Your task to perform on an android device: Go to sound settings Image 0: 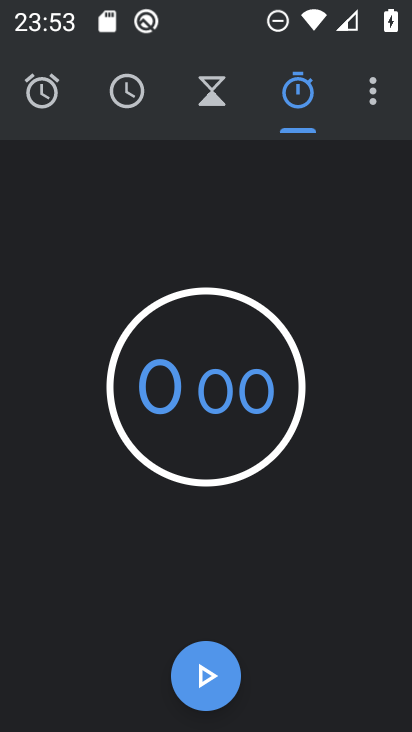
Step 0: press home button
Your task to perform on an android device: Go to sound settings Image 1: 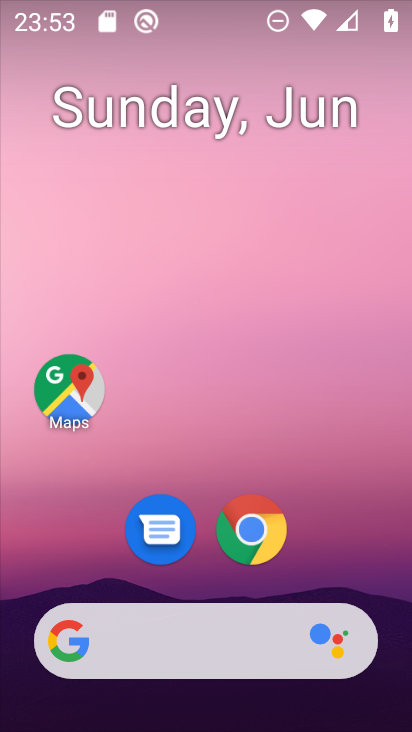
Step 1: drag from (394, 638) to (332, 29)
Your task to perform on an android device: Go to sound settings Image 2: 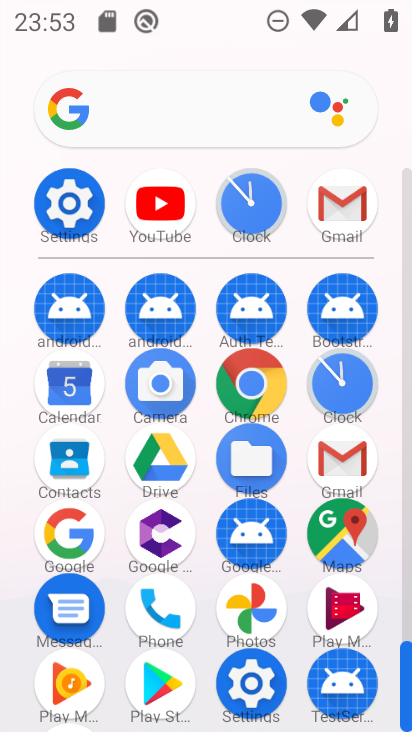
Step 2: click (250, 686)
Your task to perform on an android device: Go to sound settings Image 3: 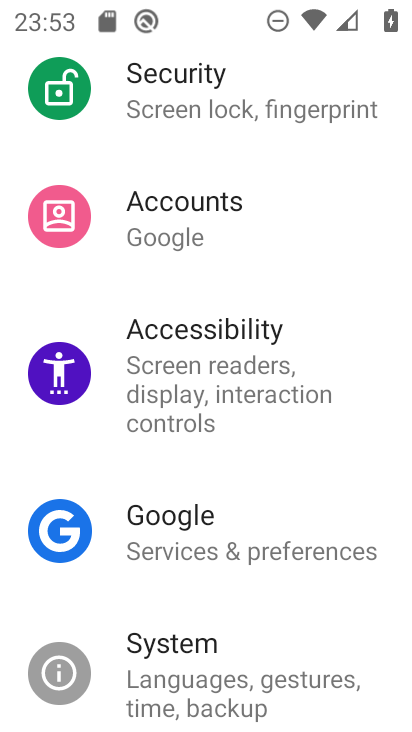
Step 3: drag from (367, 183) to (361, 541)
Your task to perform on an android device: Go to sound settings Image 4: 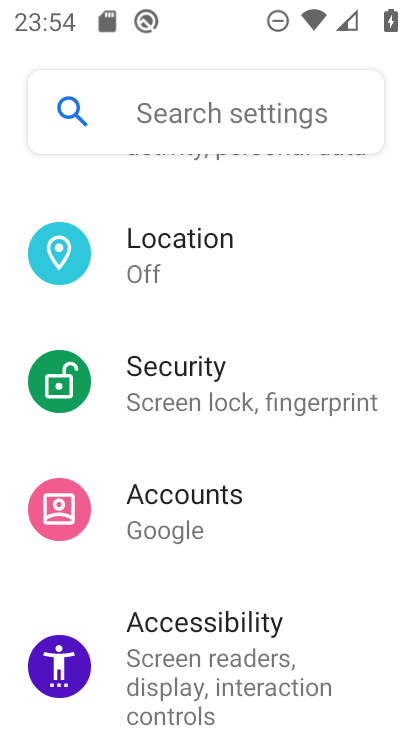
Step 4: drag from (358, 189) to (345, 612)
Your task to perform on an android device: Go to sound settings Image 5: 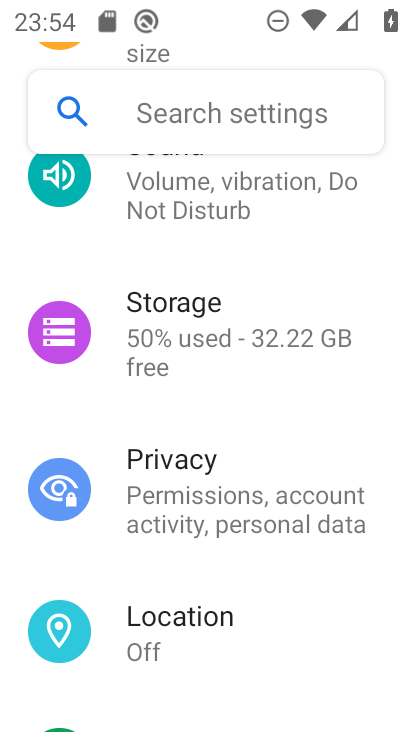
Step 5: drag from (339, 249) to (320, 433)
Your task to perform on an android device: Go to sound settings Image 6: 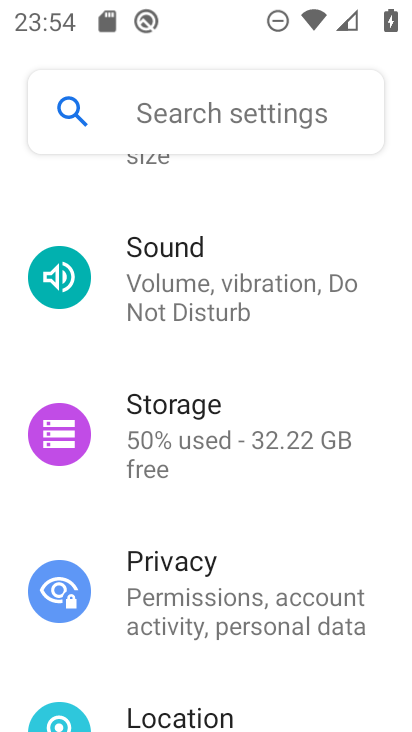
Step 6: click (171, 272)
Your task to perform on an android device: Go to sound settings Image 7: 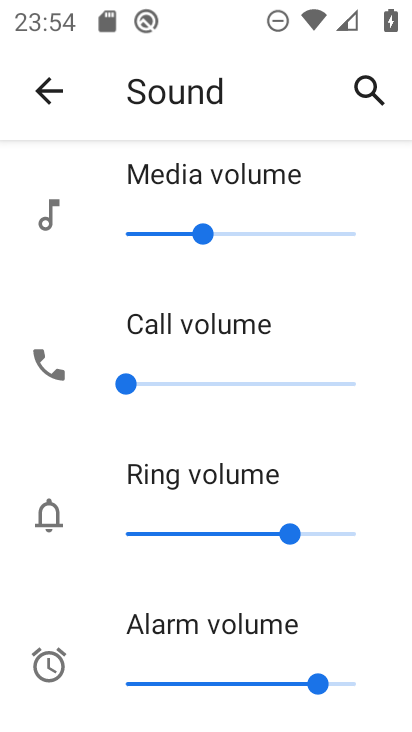
Step 7: drag from (376, 663) to (370, 179)
Your task to perform on an android device: Go to sound settings Image 8: 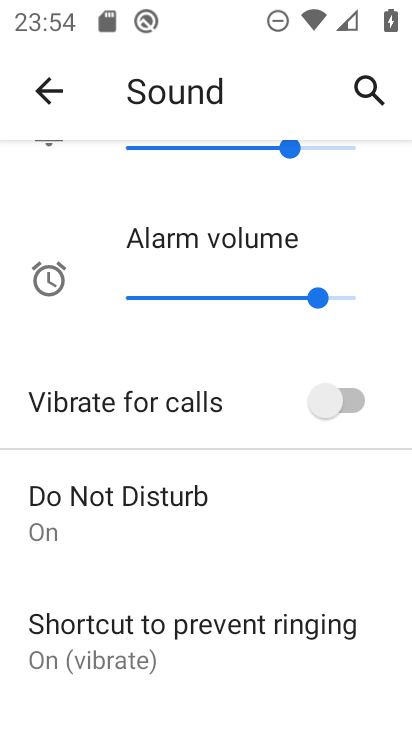
Step 8: drag from (350, 621) to (376, 191)
Your task to perform on an android device: Go to sound settings Image 9: 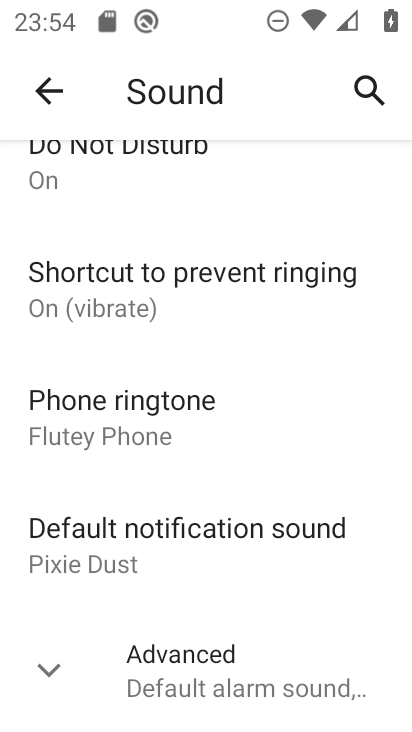
Step 9: click (42, 667)
Your task to perform on an android device: Go to sound settings Image 10: 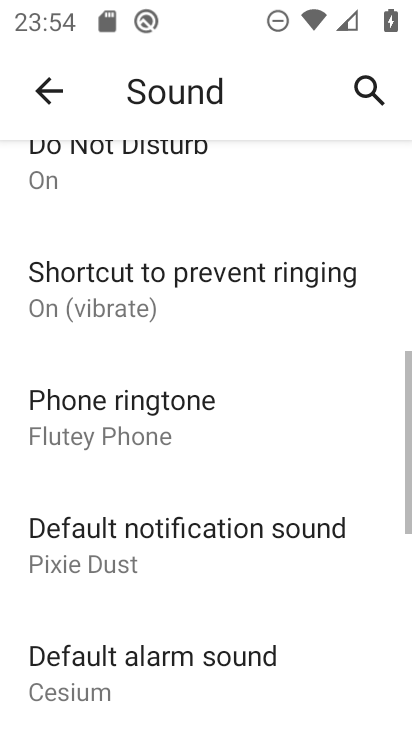
Step 10: task complete